Your task to perform on an android device: turn notification dots off Image 0: 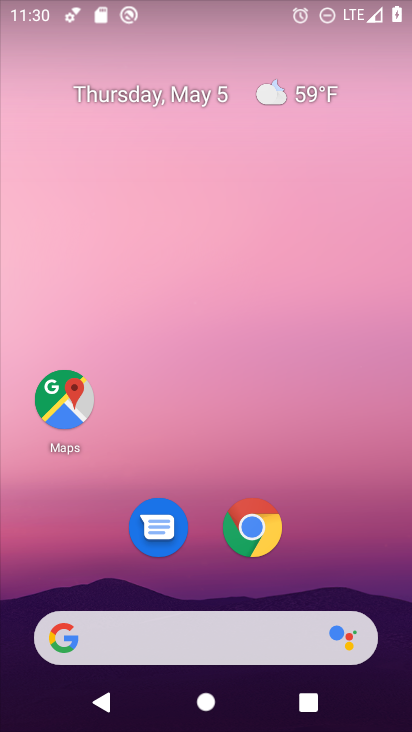
Step 0: drag from (279, 709) to (312, 14)
Your task to perform on an android device: turn notification dots off Image 1: 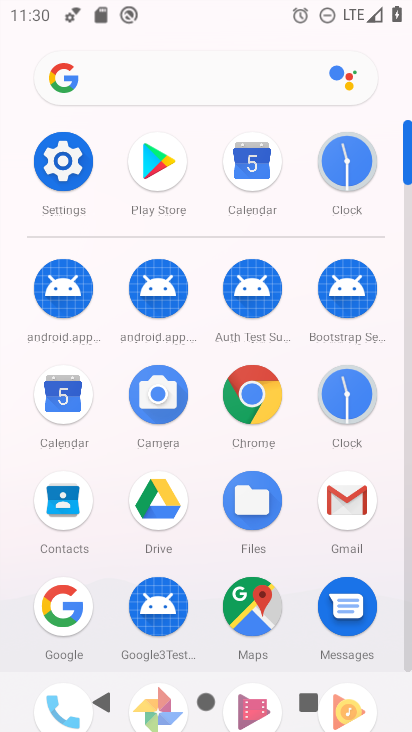
Step 1: click (73, 160)
Your task to perform on an android device: turn notification dots off Image 2: 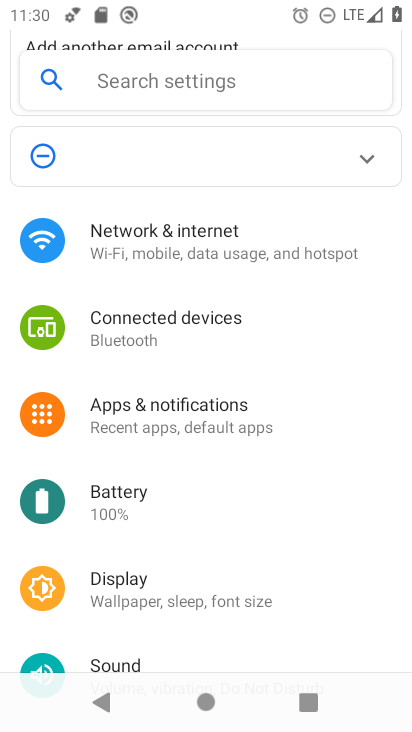
Step 2: click (231, 412)
Your task to perform on an android device: turn notification dots off Image 3: 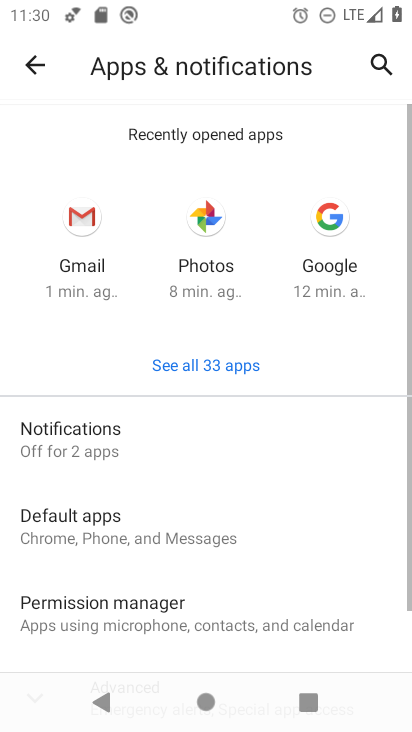
Step 3: click (105, 444)
Your task to perform on an android device: turn notification dots off Image 4: 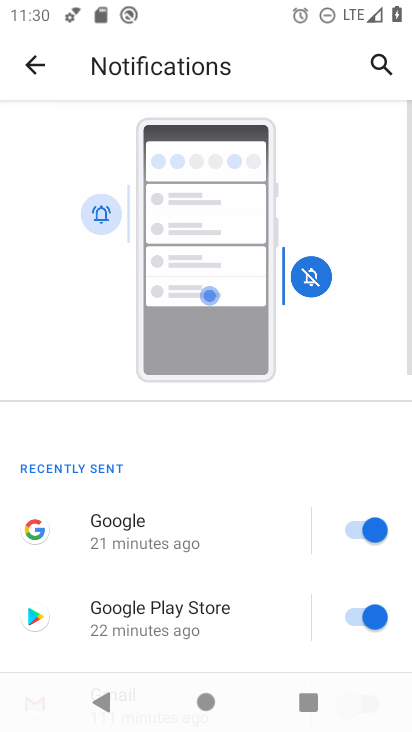
Step 4: drag from (261, 585) to (245, 130)
Your task to perform on an android device: turn notification dots off Image 5: 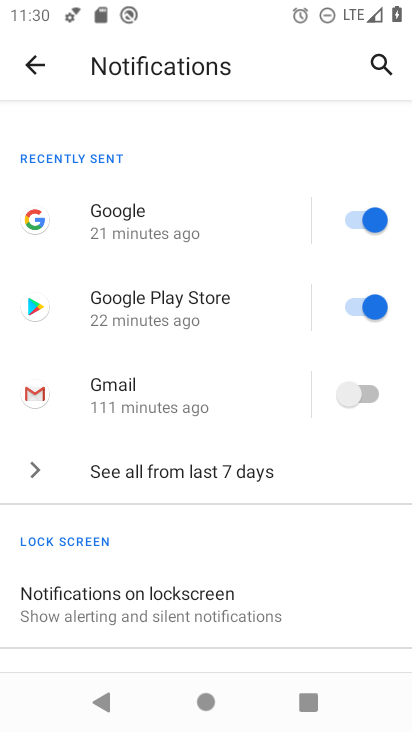
Step 5: drag from (284, 563) to (277, 19)
Your task to perform on an android device: turn notification dots off Image 6: 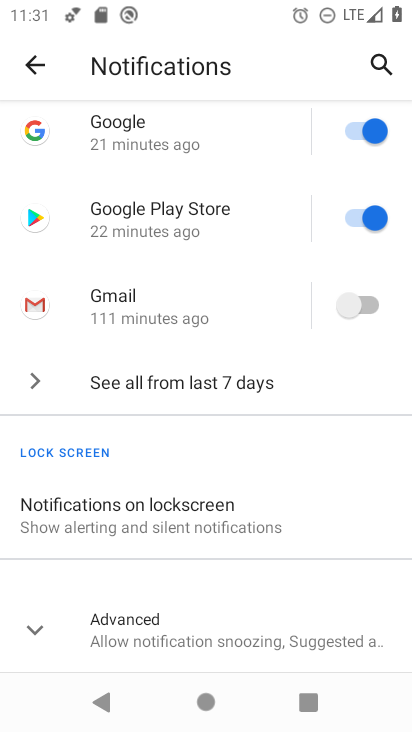
Step 6: click (208, 629)
Your task to perform on an android device: turn notification dots off Image 7: 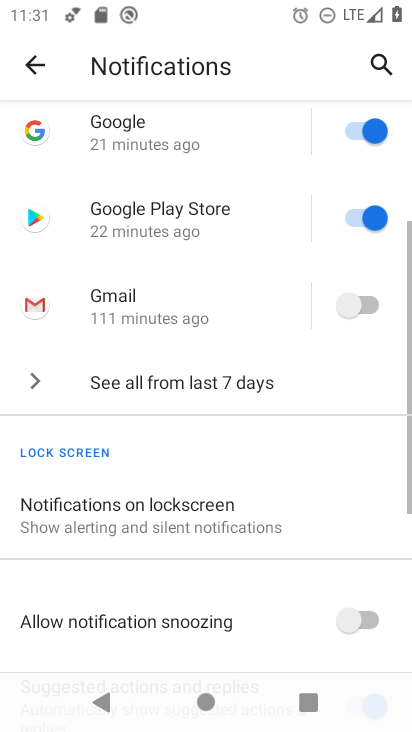
Step 7: task complete